Your task to perform on an android device: Open Google Maps Image 0: 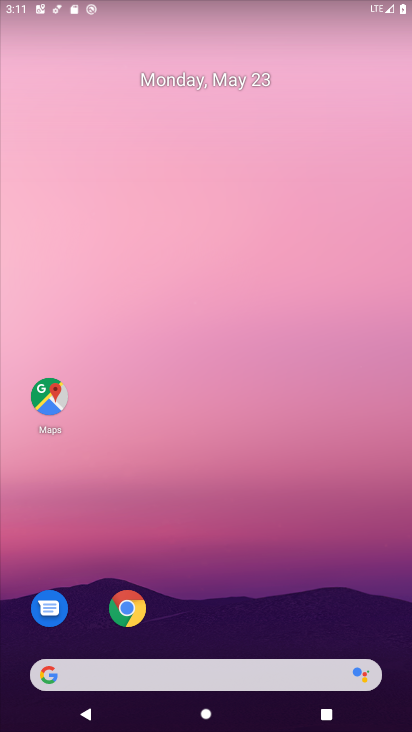
Step 0: click (51, 404)
Your task to perform on an android device: Open Google Maps Image 1: 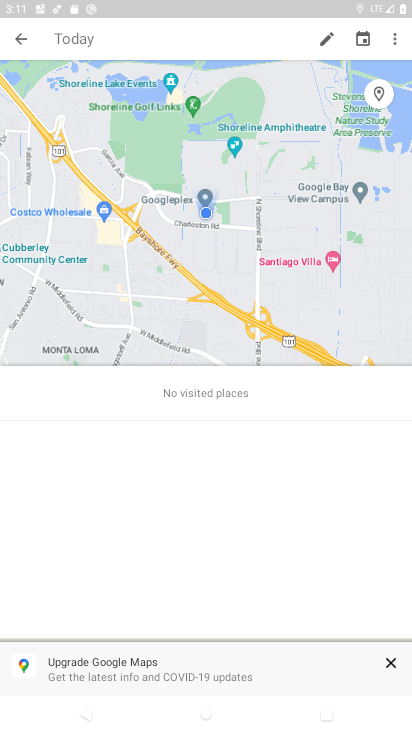
Step 1: task complete